Your task to perform on an android device: Clear all items from cart on costco. Search for "jbl flip 4" on costco, select the first entry, and add it to the cart. Image 0: 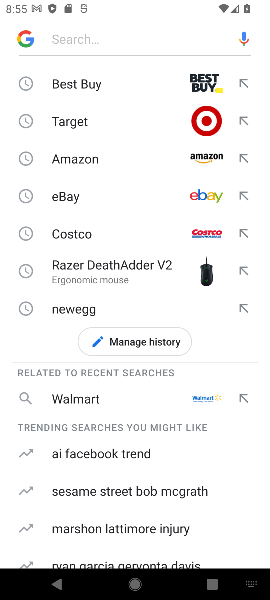
Step 0: click (101, 230)
Your task to perform on an android device: Clear all items from cart on costco. Search for "jbl flip 4" on costco, select the first entry, and add it to the cart. Image 1: 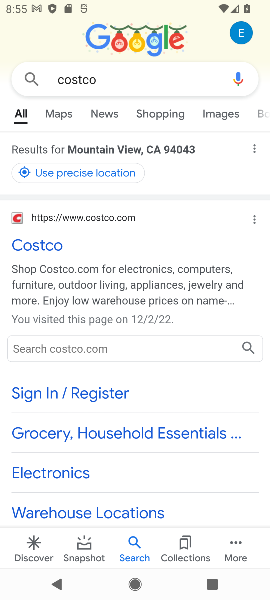
Step 1: click (20, 237)
Your task to perform on an android device: Clear all items from cart on costco. Search for "jbl flip 4" on costco, select the first entry, and add it to the cart. Image 2: 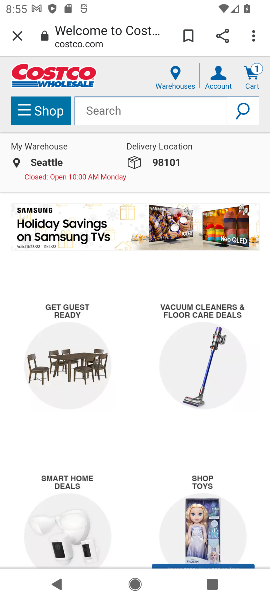
Step 2: click (116, 116)
Your task to perform on an android device: Clear all items from cart on costco. Search for "jbl flip 4" on costco, select the first entry, and add it to the cart. Image 3: 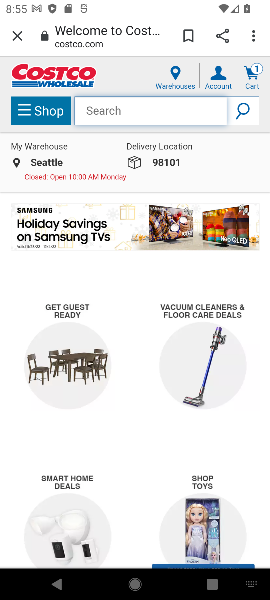
Step 3: type "jbl flip 4"
Your task to perform on an android device: Clear all items from cart on costco. Search for "jbl flip 4" on costco, select the first entry, and add it to the cart. Image 4: 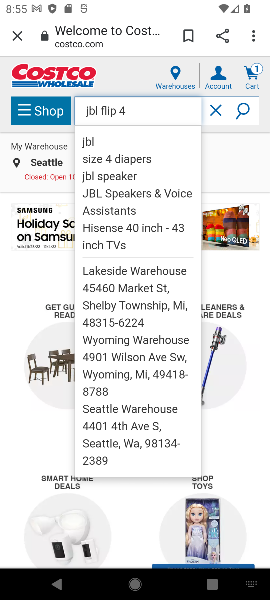
Step 4: click (245, 117)
Your task to perform on an android device: Clear all items from cart on costco. Search for "jbl flip 4" on costco, select the first entry, and add it to the cart. Image 5: 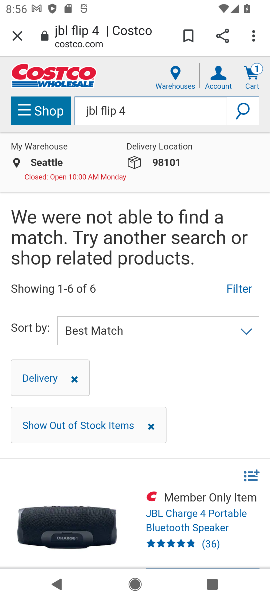
Step 5: click (245, 117)
Your task to perform on an android device: Clear all items from cart on costco. Search for "jbl flip 4" on costco, select the first entry, and add it to the cart. Image 6: 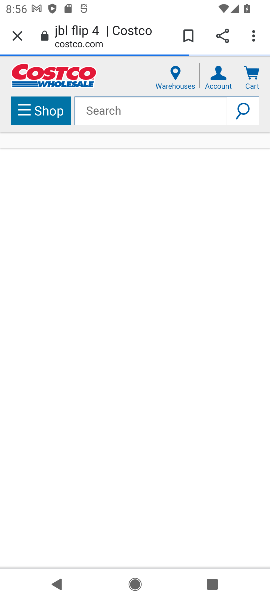
Step 6: task complete